Your task to perform on an android device: Is it going to rain this weekend? Image 0: 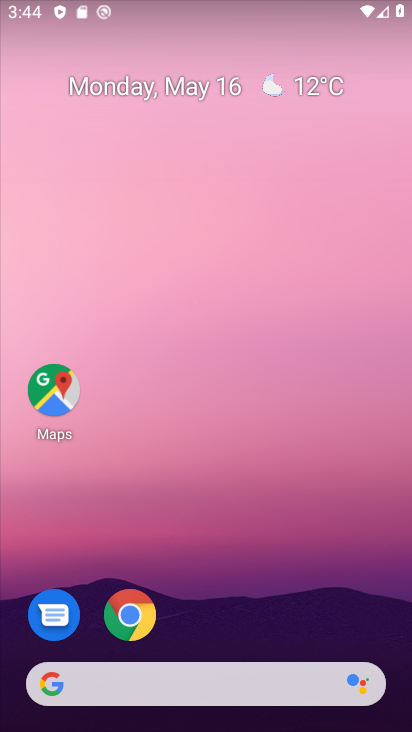
Step 0: click (274, 87)
Your task to perform on an android device: Is it going to rain this weekend? Image 1: 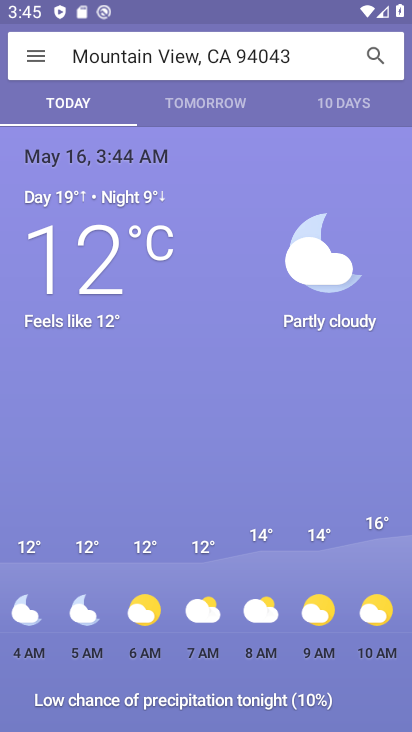
Step 1: click (366, 96)
Your task to perform on an android device: Is it going to rain this weekend? Image 2: 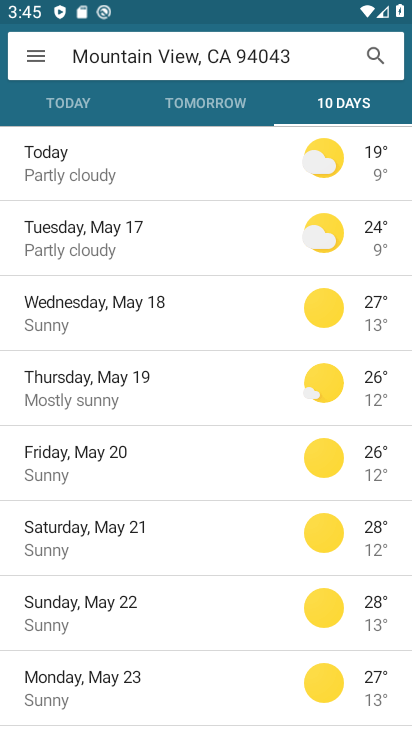
Step 2: click (68, 522)
Your task to perform on an android device: Is it going to rain this weekend? Image 3: 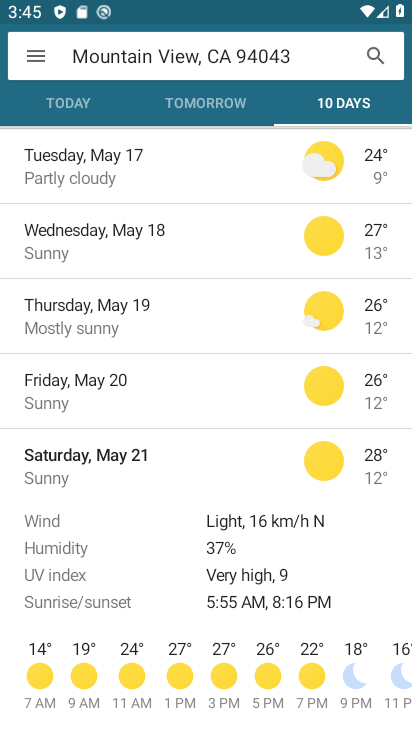
Step 3: task complete